Your task to perform on an android device: Clear all items from cart on costco.com. Add logitech g903 to the cart on costco.com Image 0: 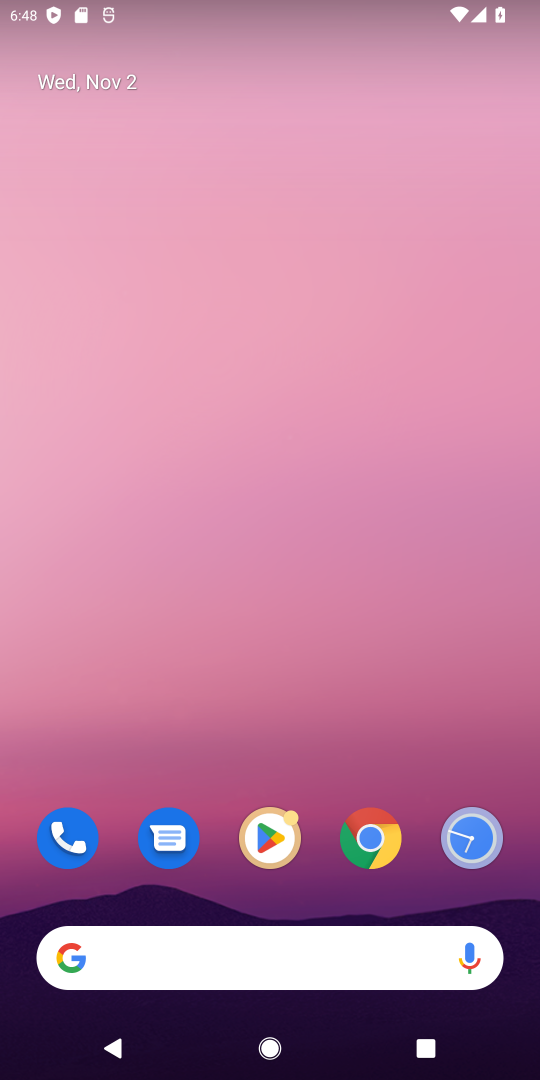
Step 0: click (380, 848)
Your task to perform on an android device: Clear all items from cart on costco.com. Add logitech g903 to the cart on costco.com Image 1: 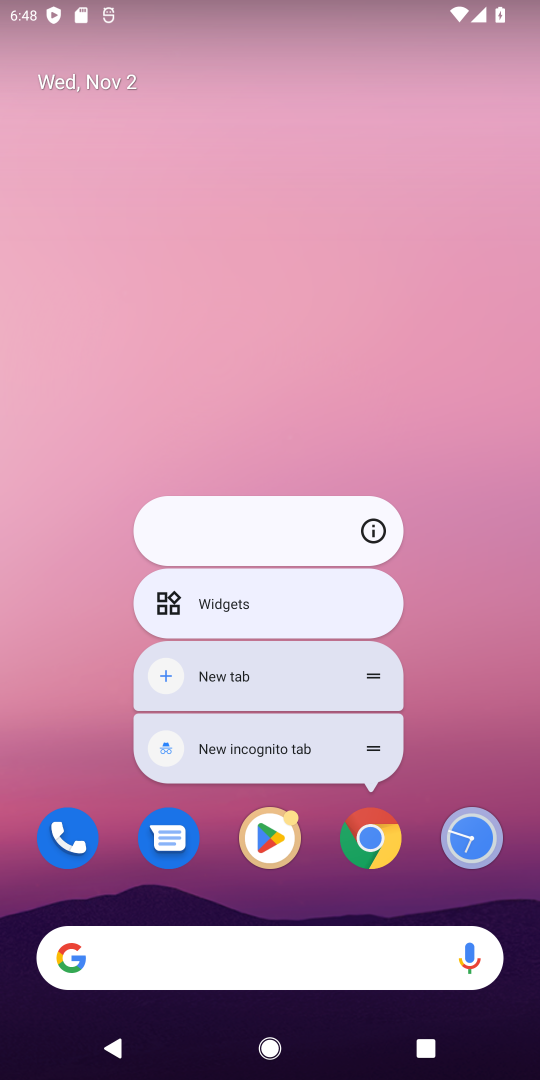
Step 1: click (381, 857)
Your task to perform on an android device: Clear all items from cart on costco.com. Add logitech g903 to the cart on costco.com Image 2: 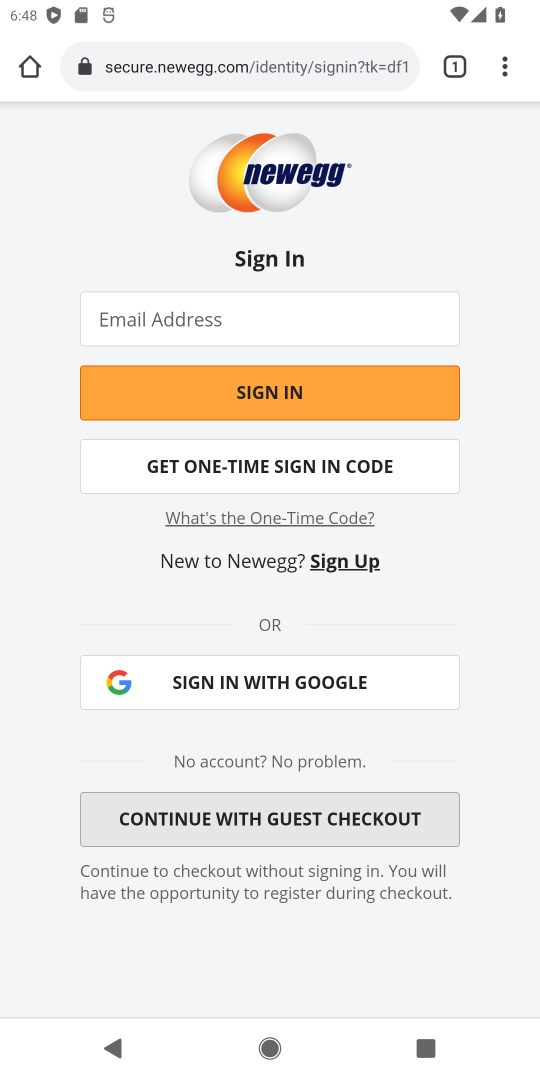
Step 2: click (272, 73)
Your task to perform on an android device: Clear all items from cart on costco.com. Add logitech g903 to the cart on costco.com Image 3: 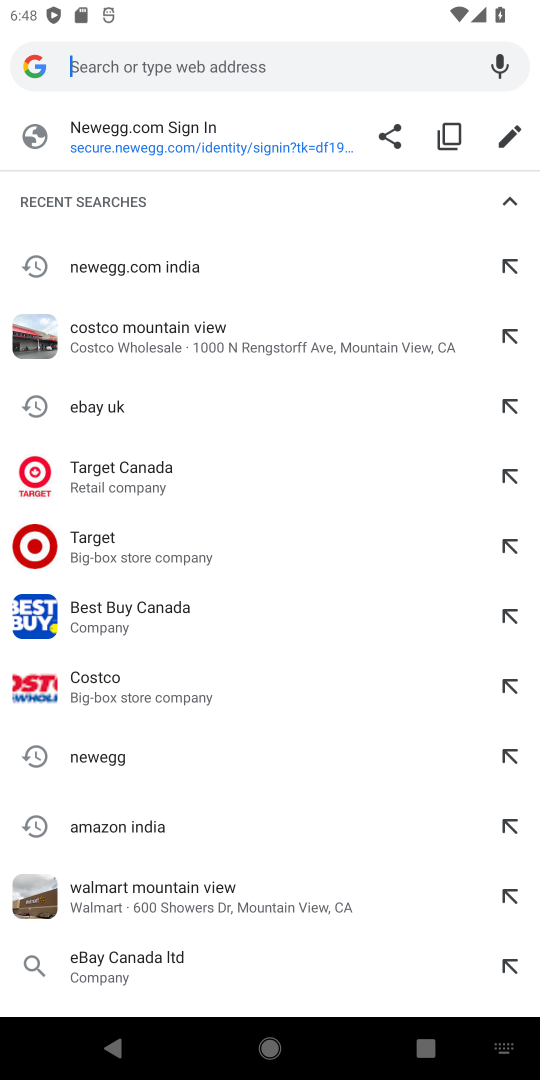
Step 3: type "costco.com"
Your task to perform on an android device: Clear all items from cart on costco.com. Add logitech g903 to the cart on costco.com Image 4: 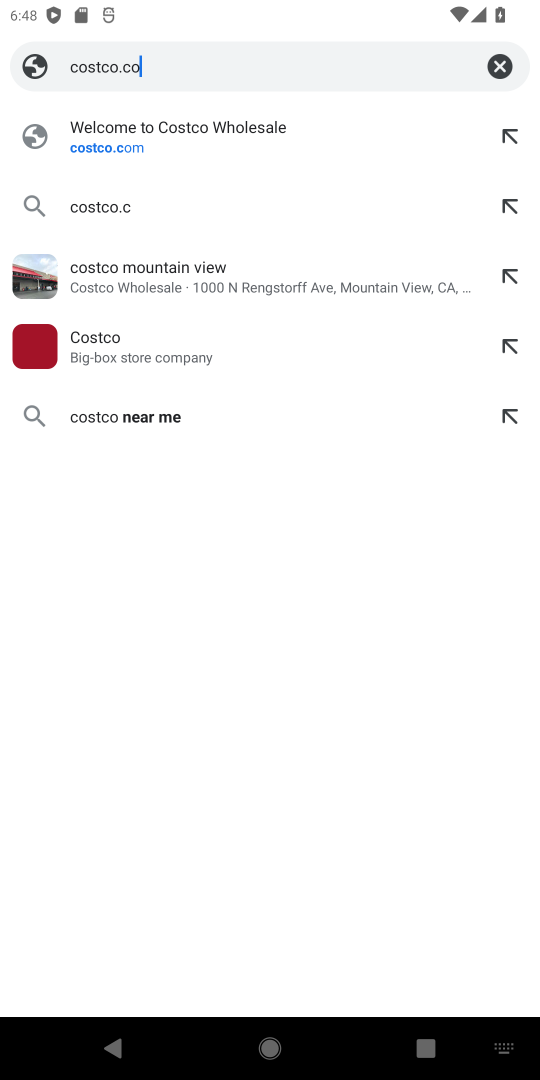
Step 4: type ""
Your task to perform on an android device: Clear all items from cart on costco.com. Add logitech g903 to the cart on costco.com Image 5: 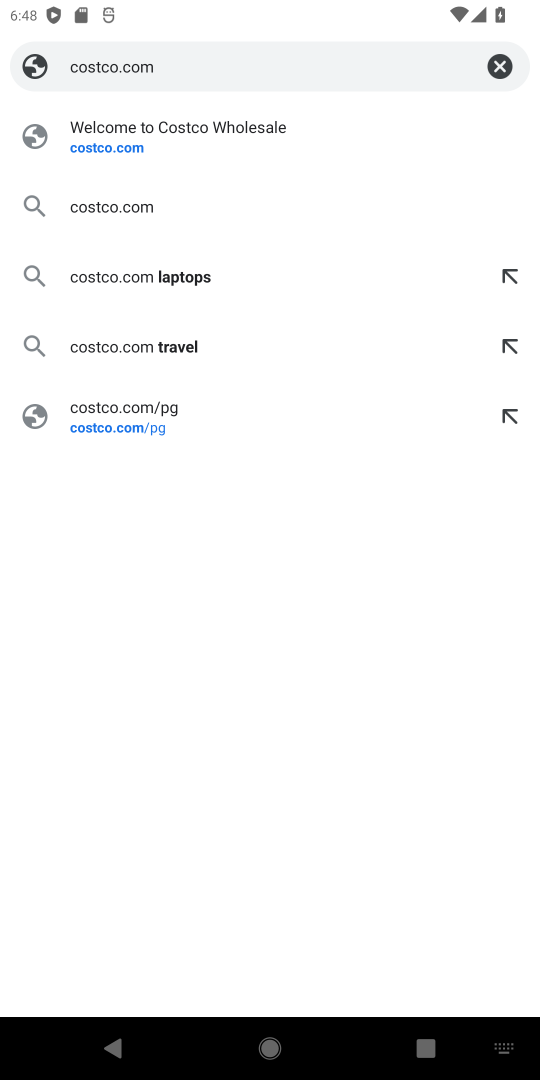
Step 5: press enter
Your task to perform on an android device: Clear all items from cart on costco.com. Add logitech g903 to the cart on costco.com Image 6: 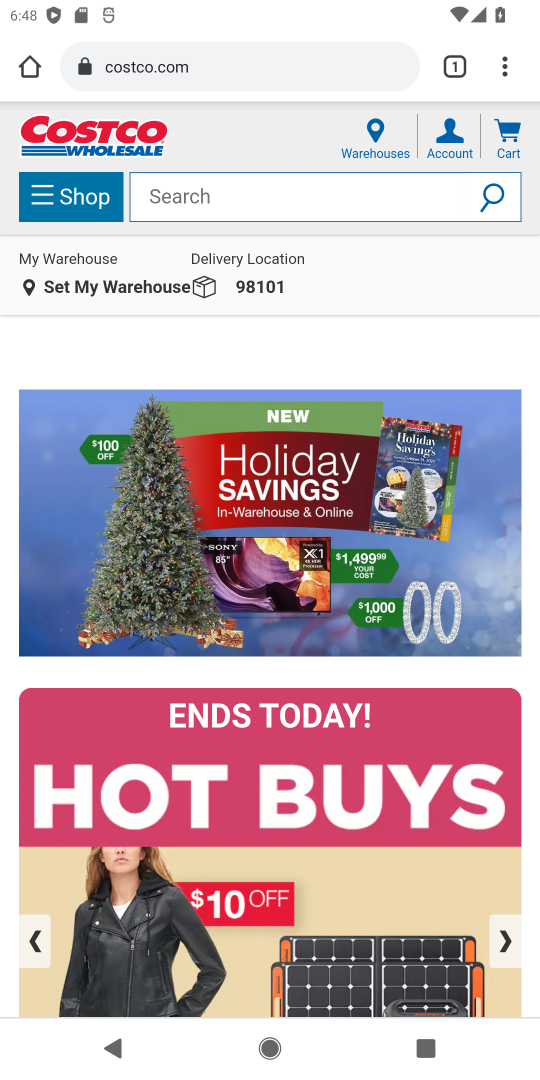
Step 6: click (501, 139)
Your task to perform on an android device: Clear all items from cart on costco.com. Add logitech g903 to the cart on costco.com Image 7: 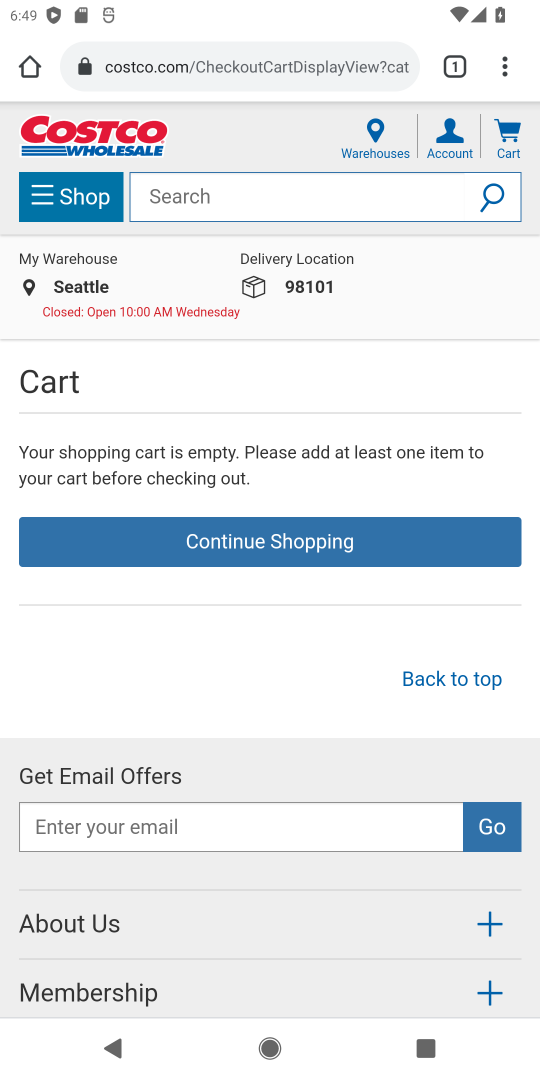
Step 7: click (304, 201)
Your task to perform on an android device: Clear all items from cart on costco.com. Add logitech g903 to the cart on costco.com Image 8: 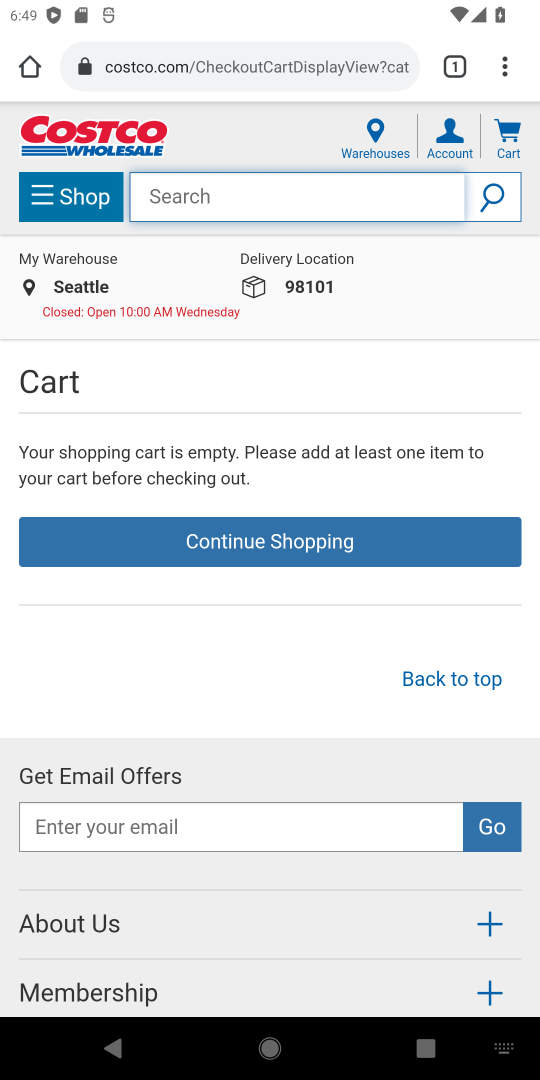
Step 8: type "logitech g903"
Your task to perform on an android device: Clear all items from cart on costco.com. Add logitech g903 to the cart on costco.com Image 9: 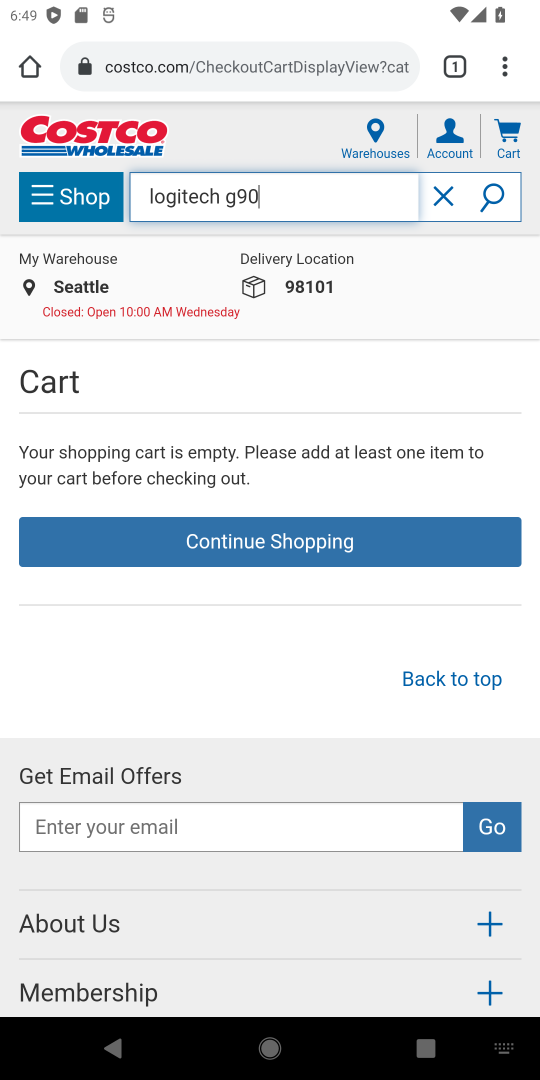
Step 9: type ""
Your task to perform on an android device: Clear all items from cart on costco.com. Add logitech g903 to the cart on costco.com Image 10: 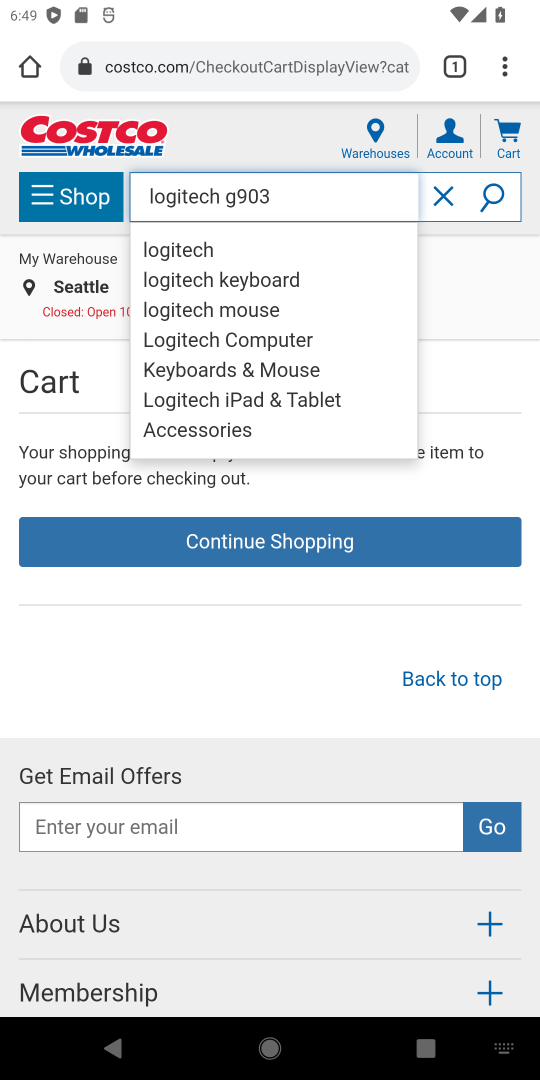
Step 10: press enter
Your task to perform on an android device: Clear all items from cart on costco.com. Add logitech g903 to the cart on costco.com Image 11: 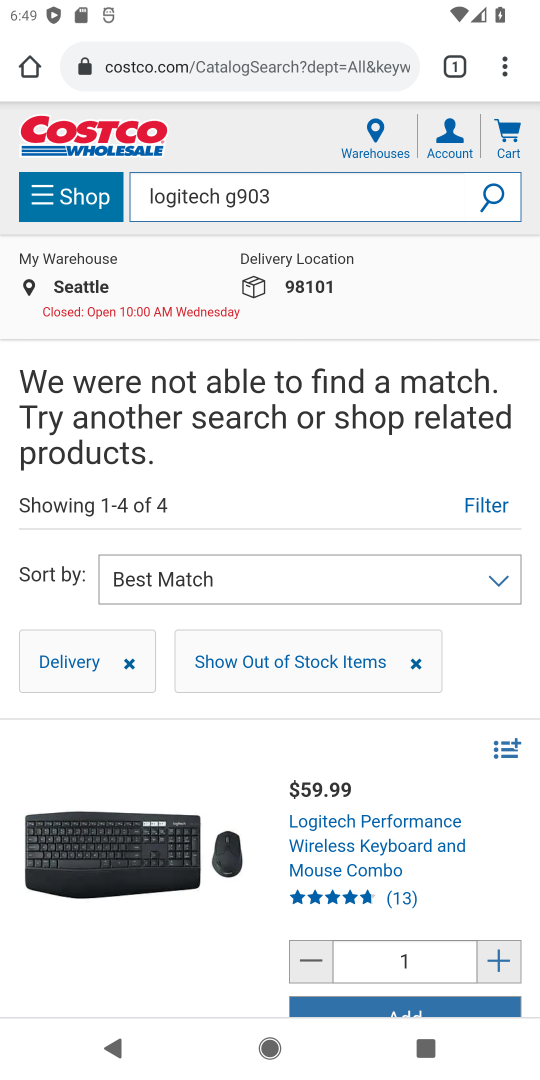
Step 11: task complete